Your task to perform on an android device: Open calendar and show me the first week of next month Image 0: 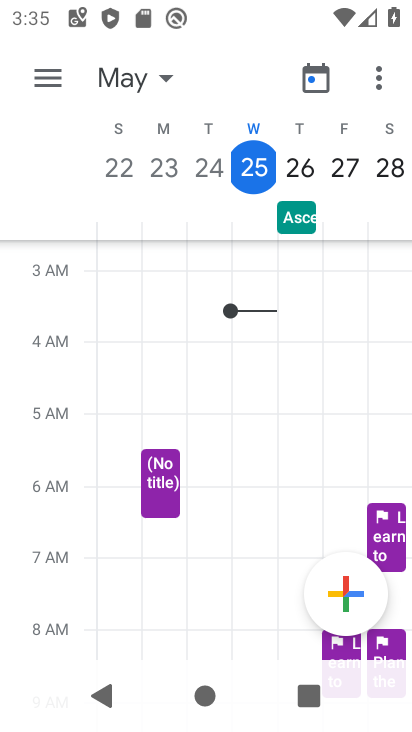
Step 0: press back button
Your task to perform on an android device: Open calendar and show me the first week of next month Image 1: 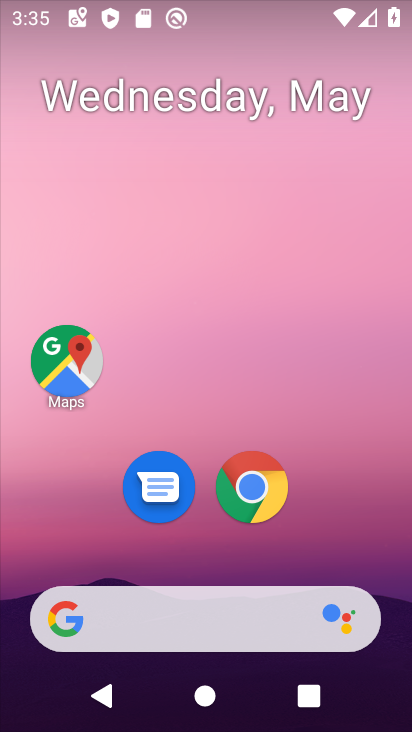
Step 1: drag from (353, 475) to (278, 34)
Your task to perform on an android device: Open calendar and show me the first week of next month Image 2: 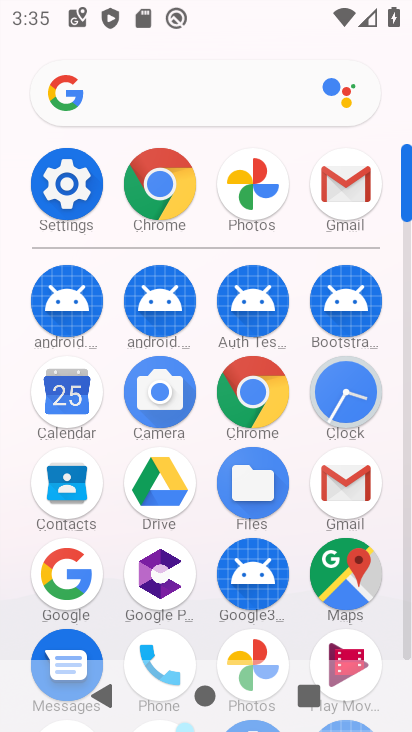
Step 2: click (65, 388)
Your task to perform on an android device: Open calendar and show me the first week of next month Image 3: 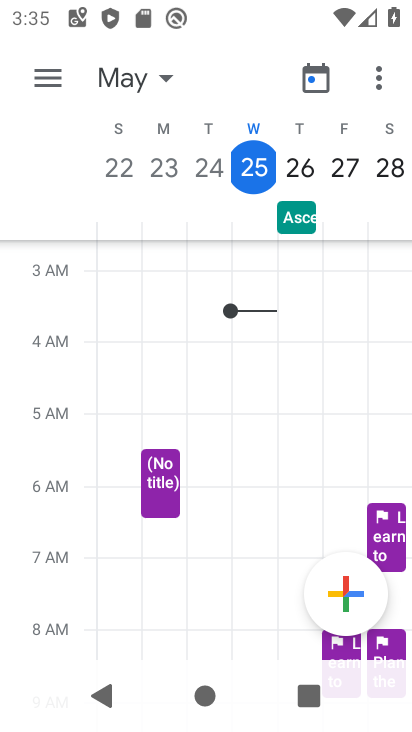
Step 3: click (48, 67)
Your task to perform on an android device: Open calendar and show me the first week of next month Image 4: 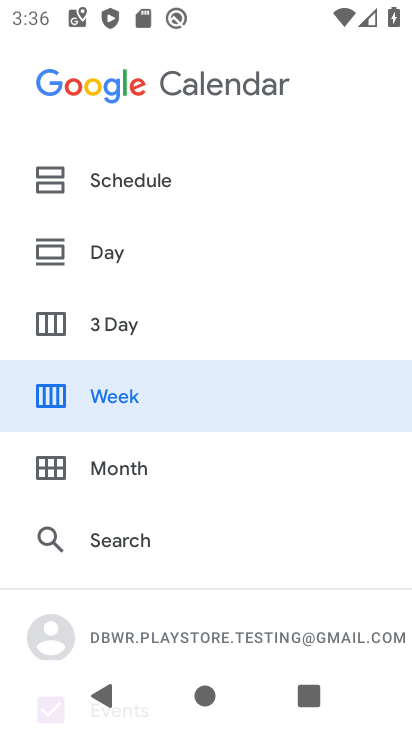
Step 4: click (120, 457)
Your task to perform on an android device: Open calendar and show me the first week of next month Image 5: 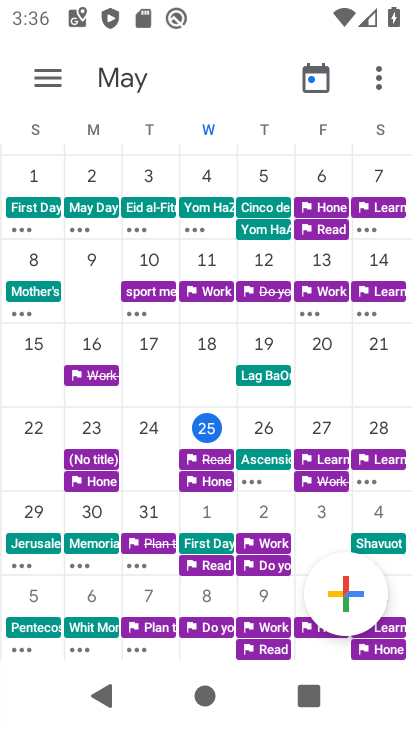
Step 5: drag from (384, 351) to (21, 373)
Your task to perform on an android device: Open calendar and show me the first week of next month Image 6: 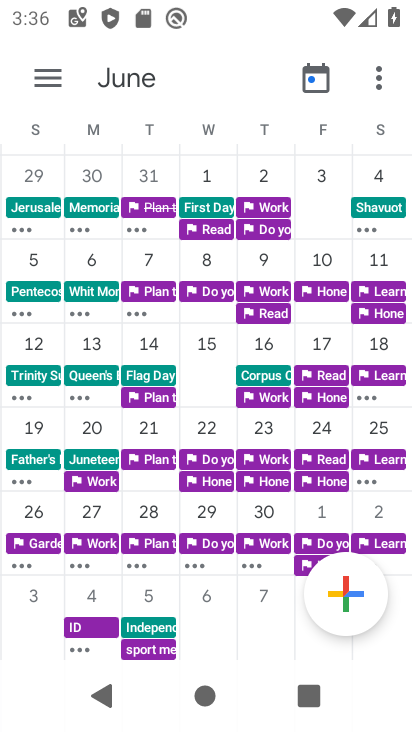
Step 6: click (204, 174)
Your task to perform on an android device: Open calendar and show me the first week of next month Image 7: 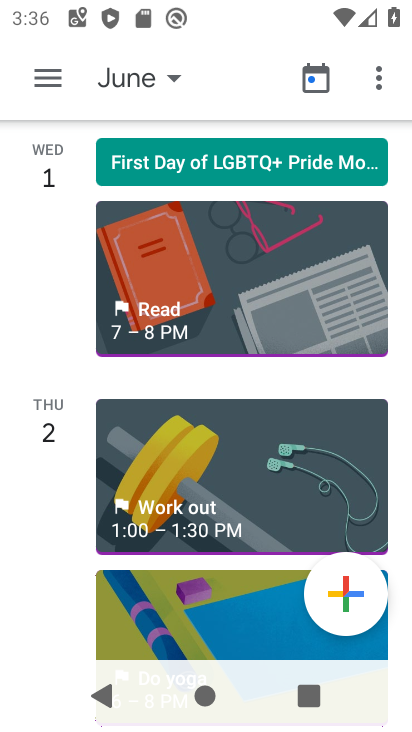
Step 7: click (50, 71)
Your task to perform on an android device: Open calendar and show me the first week of next month Image 8: 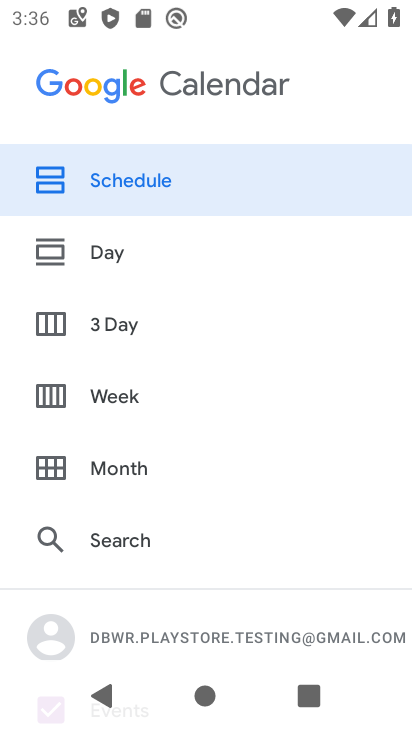
Step 8: click (122, 400)
Your task to perform on an android device: Open calendar and show me the first week of next month Image 9: 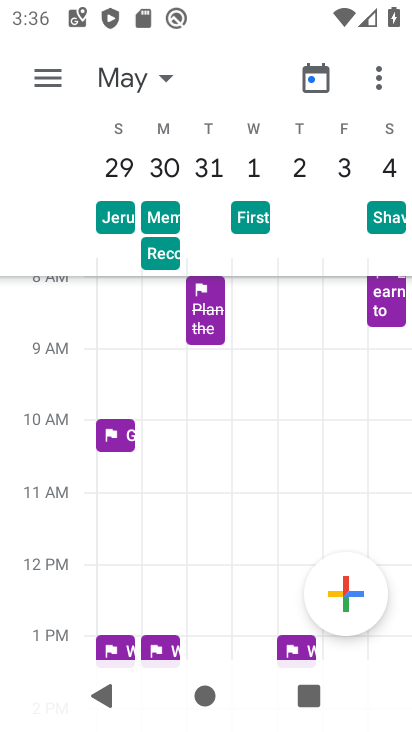
Step 9: task complete